Your task to perform on an android device: turn on improve location accuracy Image 0: 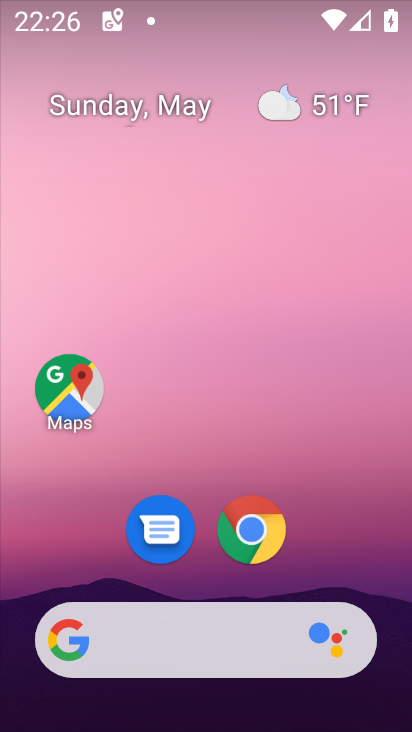
Step 0: drag from (335, 579) to (261, 40)
Your task to perform on an android device: turn on improve location accuracy Image 1: 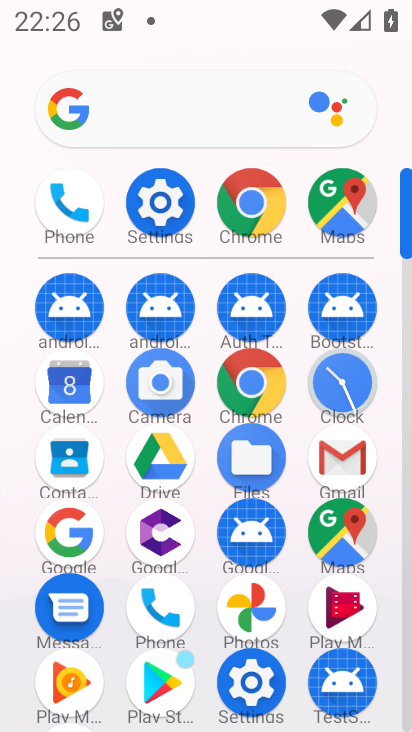
Step 1: click (262, 690)
Your task to perform on an android device: turn on improve location accuracy Image 2: 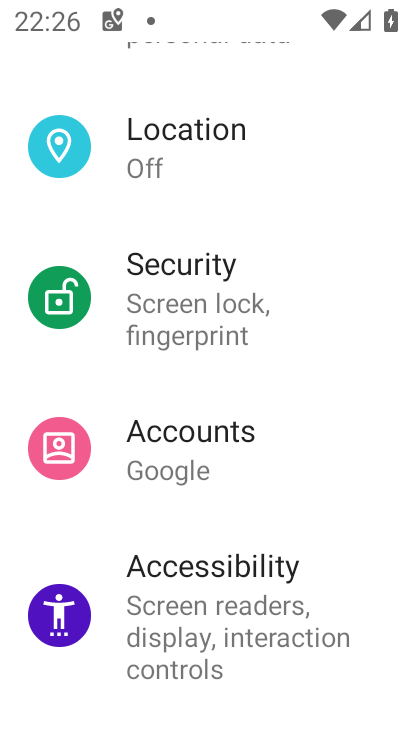
Step 2: drag from (238, 147) to (264, 371)
Your task to perform on an android device: turn on improve location accuracy Image 3: 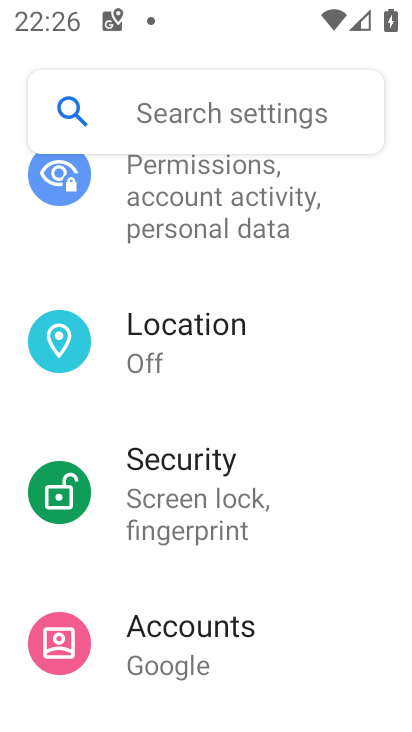
Step 3: click (225, 363)
Your task to perform on an android device: turn on improve location accuracy Image 4: 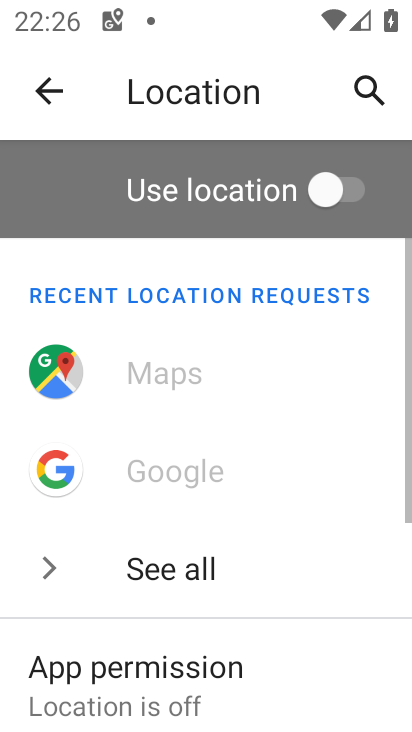
Step 4: drag from (296, 647) to (197, 176)
Your task to perform on an android device: turn on improve location accuracy Image 5: 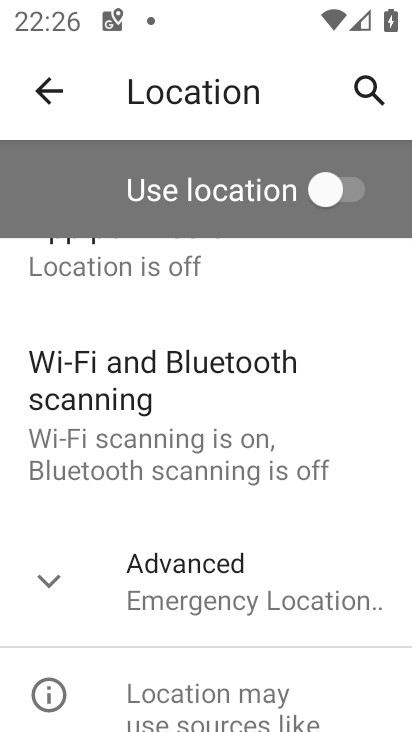
Step 5: click (214, 584)
Your task to perform on an android device: turn on improve location accuracy Image 6: 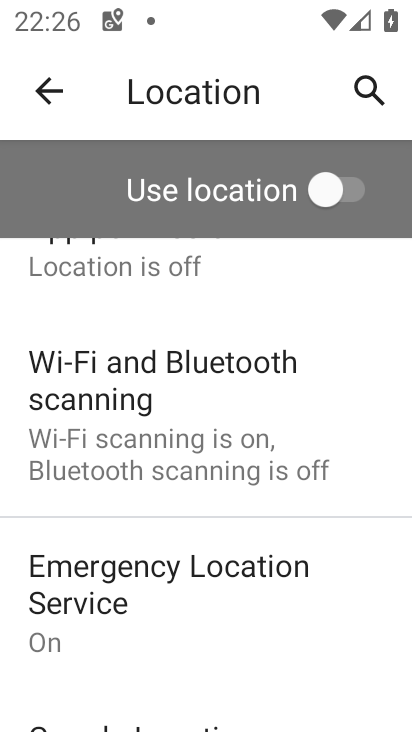
Step 6: drag from (240, 658) to (233, 309)
Your task to perform on an android device: turn on improve location accuracy Image 7: 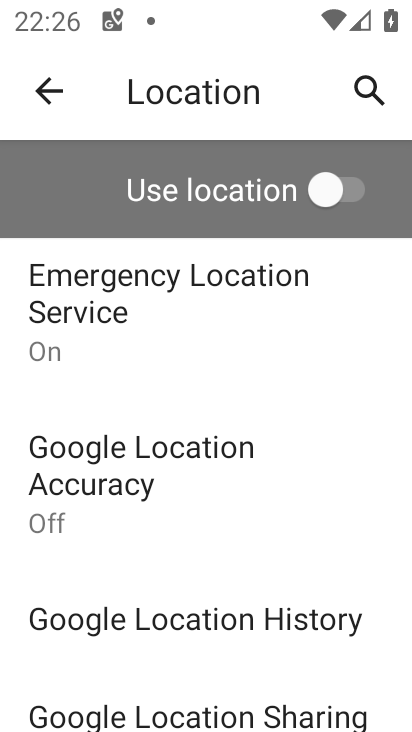
Step 7: click (199, 466)
Your task to perform on an android device: turn on improve location accuracy Image 8: 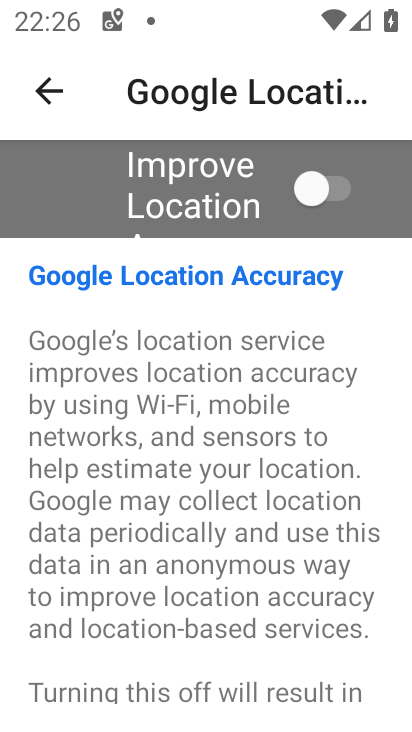
Step 8: click (340, 188)
Your task to perform on an android device: turn on improve location accuracy Image 9: 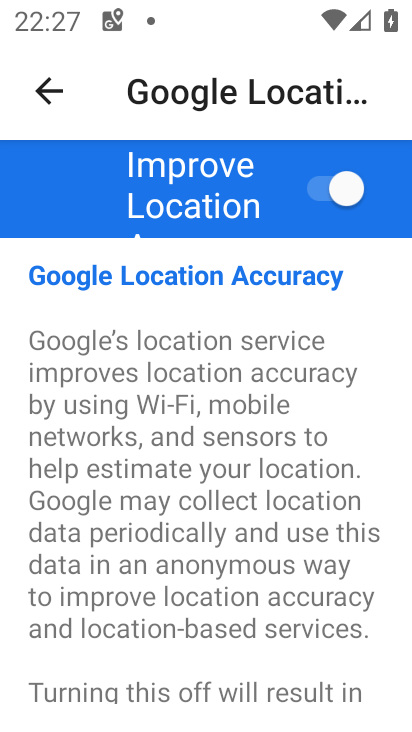
Step 9: task complete